Your task to perform on an android device: turn notification dots on Image 0: 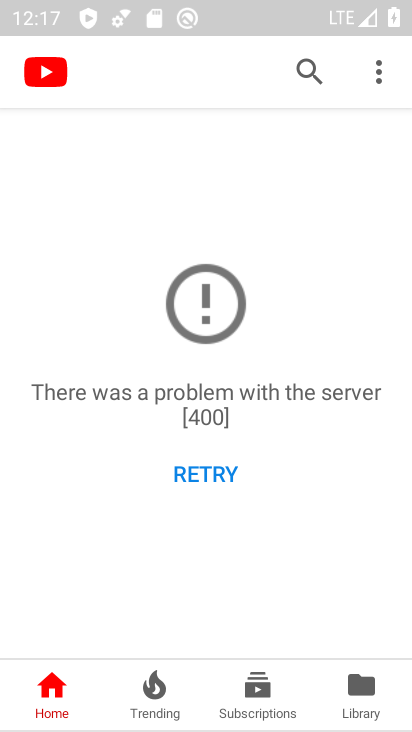
Step 0: press back button
Your task to perform on an android device: turn notification dots on Image 1: 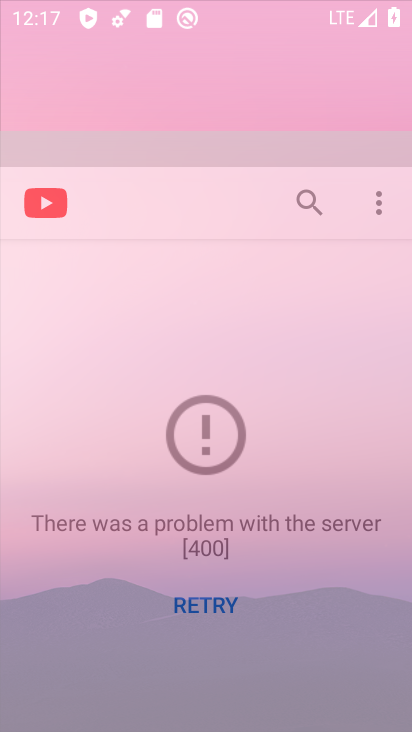
Step 1: press home button
Your task to perform on an android device: turn notification dots on Image 2: 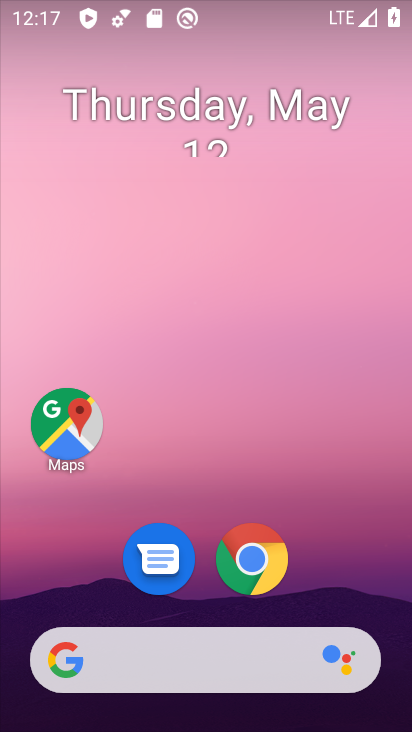
Step 2: drag from (64, 623) to (183, 163)
Your task to perform on an android device: turn notification dots on Image 3: 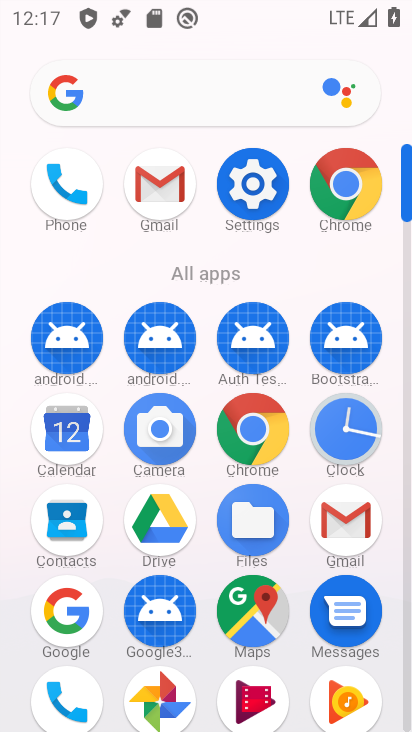
Step 3: drag from (155, 601) to (197, 331)
Your task to perform on an android device: turn notification dots on Image 4: 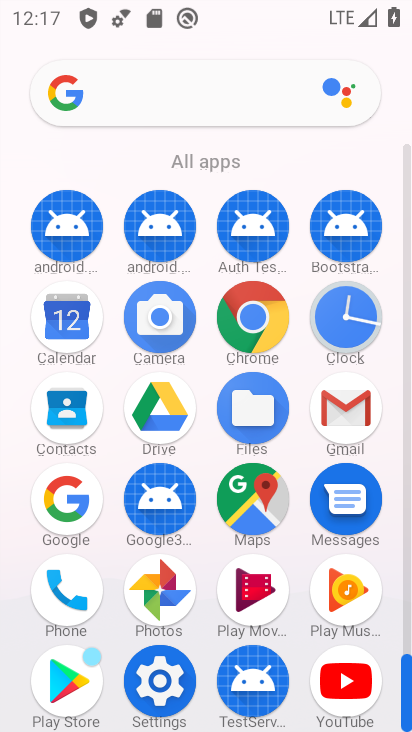
Step 4: click (177, 682)
Your task to perform on an android device: turn notification dots on Image 5: 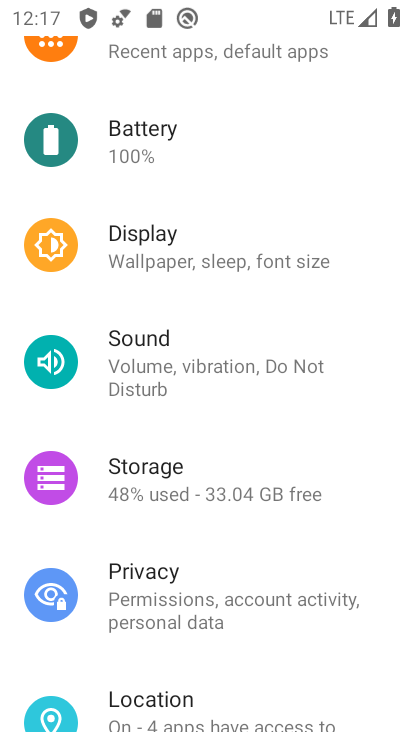
Step 5: drag from (195, 576) to (287, 243)
Your task to perform on an android device: turn notification dots on Image 6: 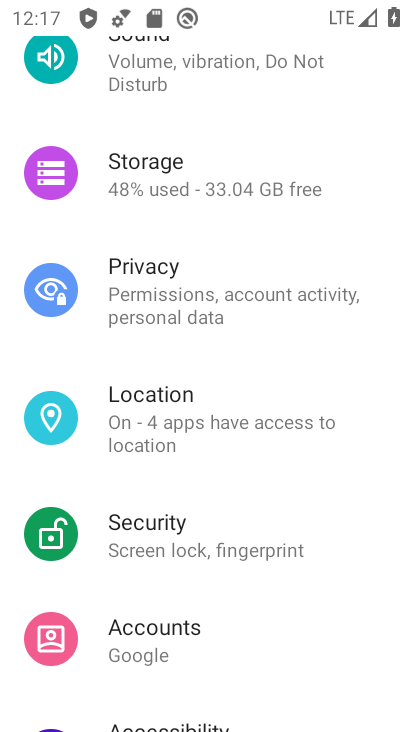
Step 6: drag from (159, 126) to (159, 562)
Your task to perform on an android device: turn notification dots on Image 7: 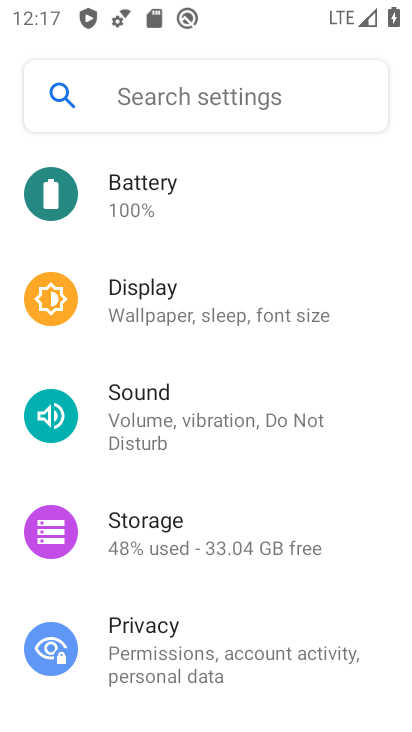
Step 7: drag from (171, 251) to (171, 513)
Your task to perform on an android device: turn notification dots on Image 8: 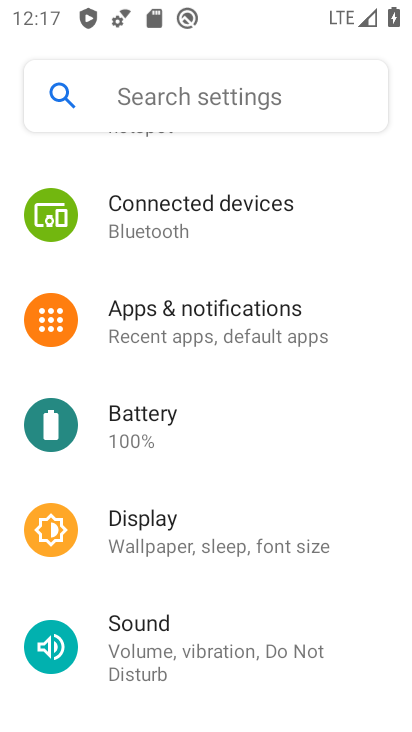
Step 8: click (202, 339)
Your task to perform on an android device: turn notification dots on Image 9: 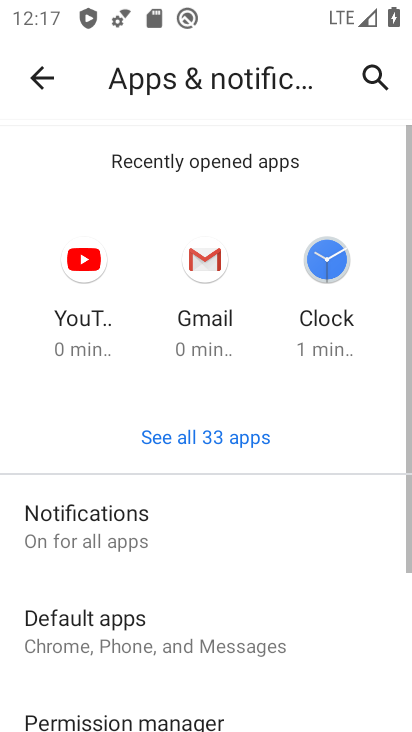
Step 9: drag from (113, 608) to (171, 322)
Your task to perform on an android device: turn notification dots on Image 10: 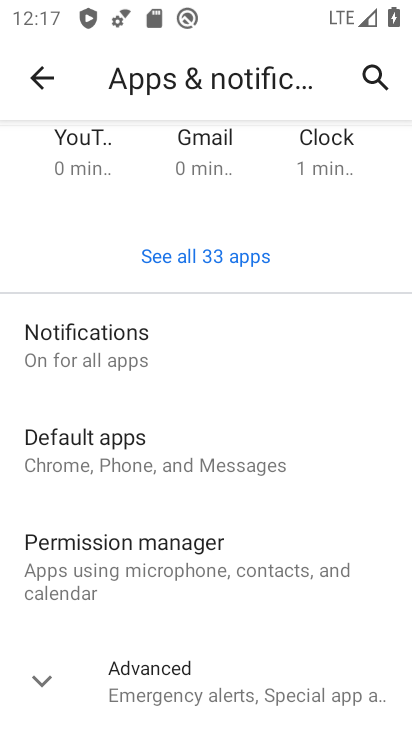
Step 10: click (157, 674)
Your task to perform on an android device: turn notification dots on Image 11: 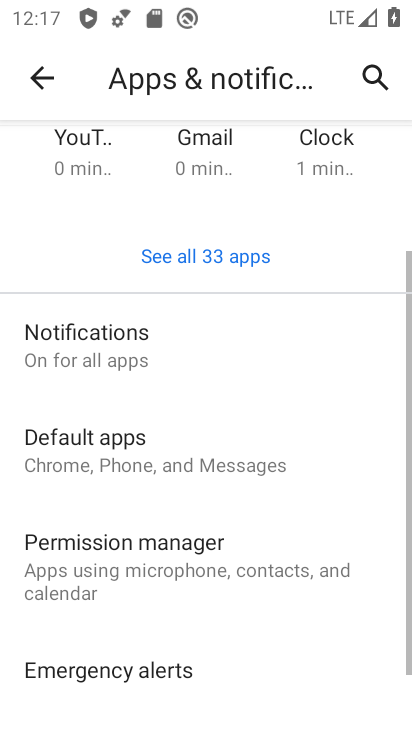
Step 11: drag from (151, 671) to (229, 295)
Your task to perform on an android device: turn notification dots on Image 12: 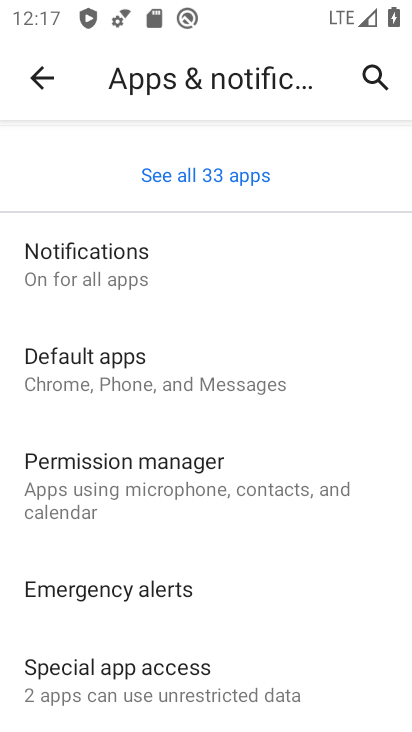
Step 12: click (157, 255)
Your task to perform on an android device: turn notification dots on Image 13: 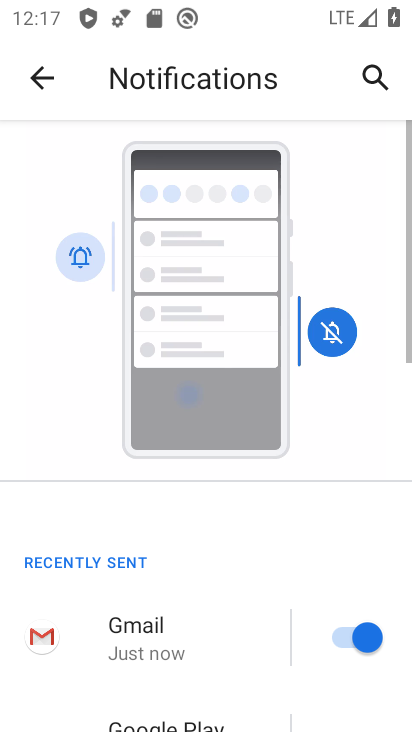
Step 13: drag from (143, 660) to (283, 85)
Your task to perform on an android device: turn notification dots on Image 14: 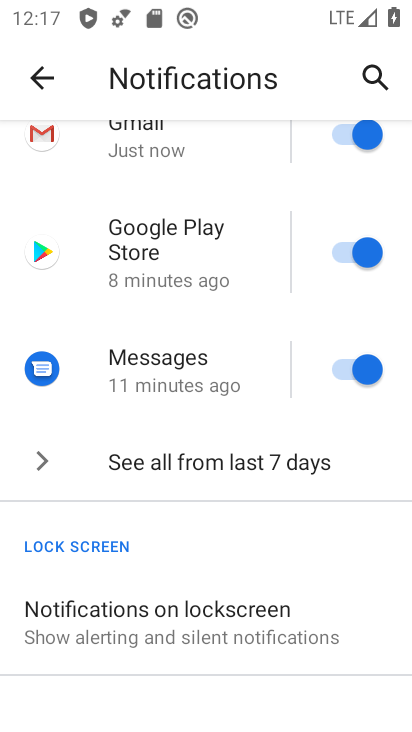
Step 14: drag from (198, 664) to (240, 323)
Your task to perform on an android device: turn notification dots on Image 15: 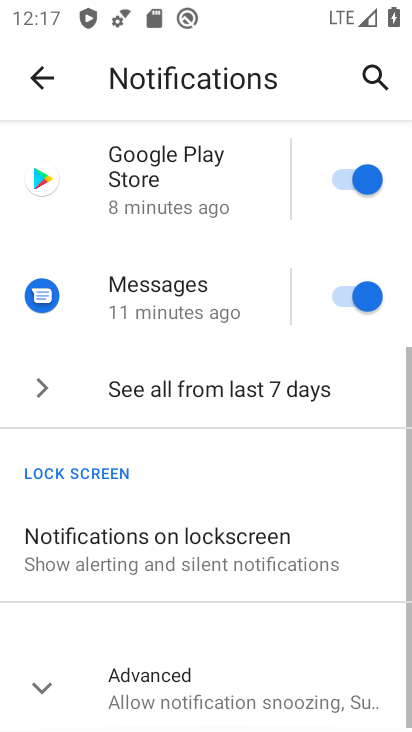
Step 15: click (220, 704)
Your task to perform on an android device: turn notification dots on Image 16: 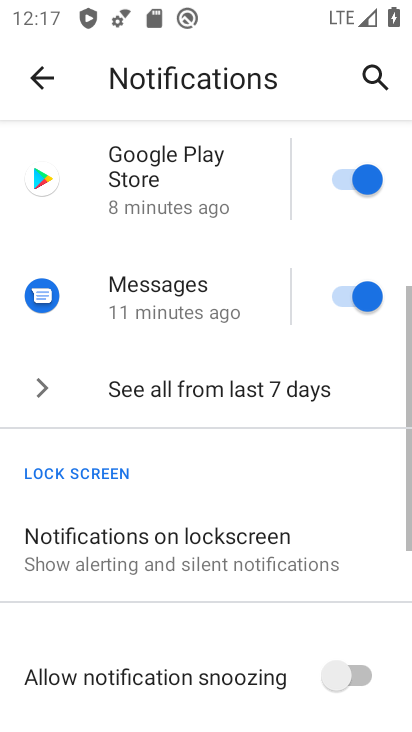
Step 16: task complete